Your task to perform on an android device: Search for the best rated drill on Lowes.com Image 0: 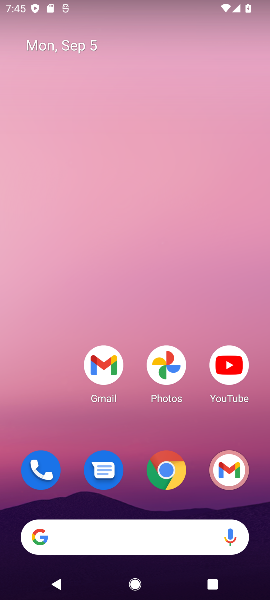
Step 0: click (126, 532)
Your task to perform on an android device: Search for the best rated drill on Lowes.com Image 1: 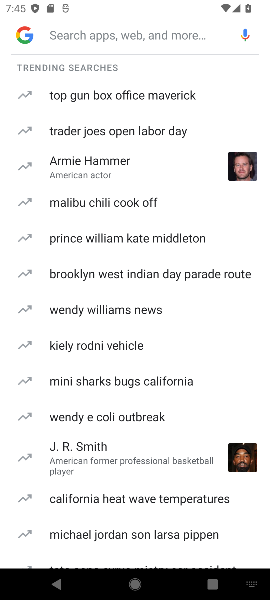
Step 1: type "lowes.com"
Your task to perform on an android device: Search for the best rated drill on Lowes.com Image 2: 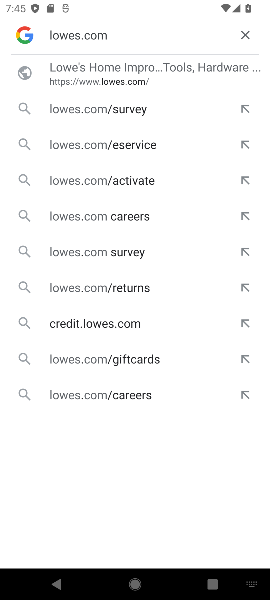
Step 2: click (82, 71)
Your task to perform on an android device: Search for the best rated drill on Lowes.com Image 3: 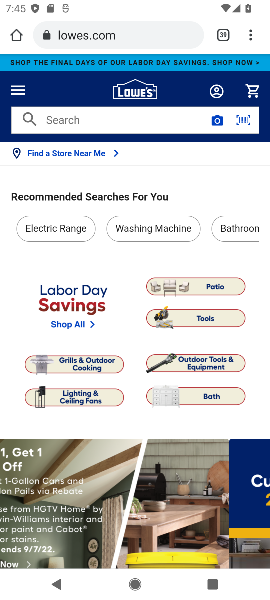
Step 3: click (120, 118)
Your task to perform on an android device: Search for the best rated drill on Lowes.com Image 4: 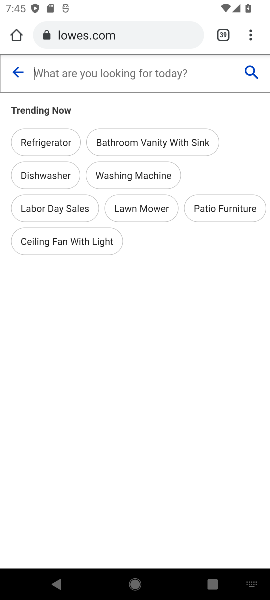
Step 4: type "best rated drill"
Your task to perform on an android device: Search for the best rated drill on Lowes.com Image 5: 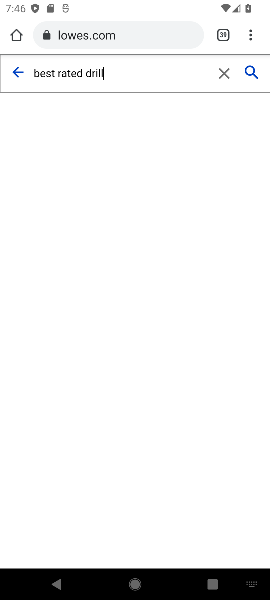
Step 5: click (245, 69)
Your task to perform on an android device: Search for the best rated drill on Lowes.com Image 6: 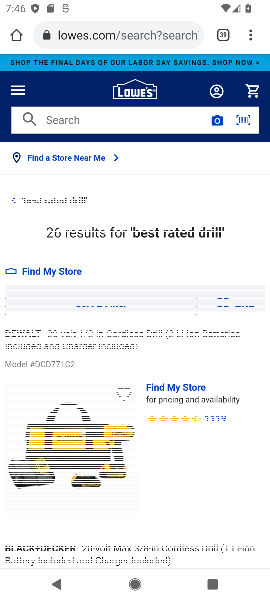
Step 6: task complete